Your task to perform on an android device: Open settings on Google Maps Image 0: 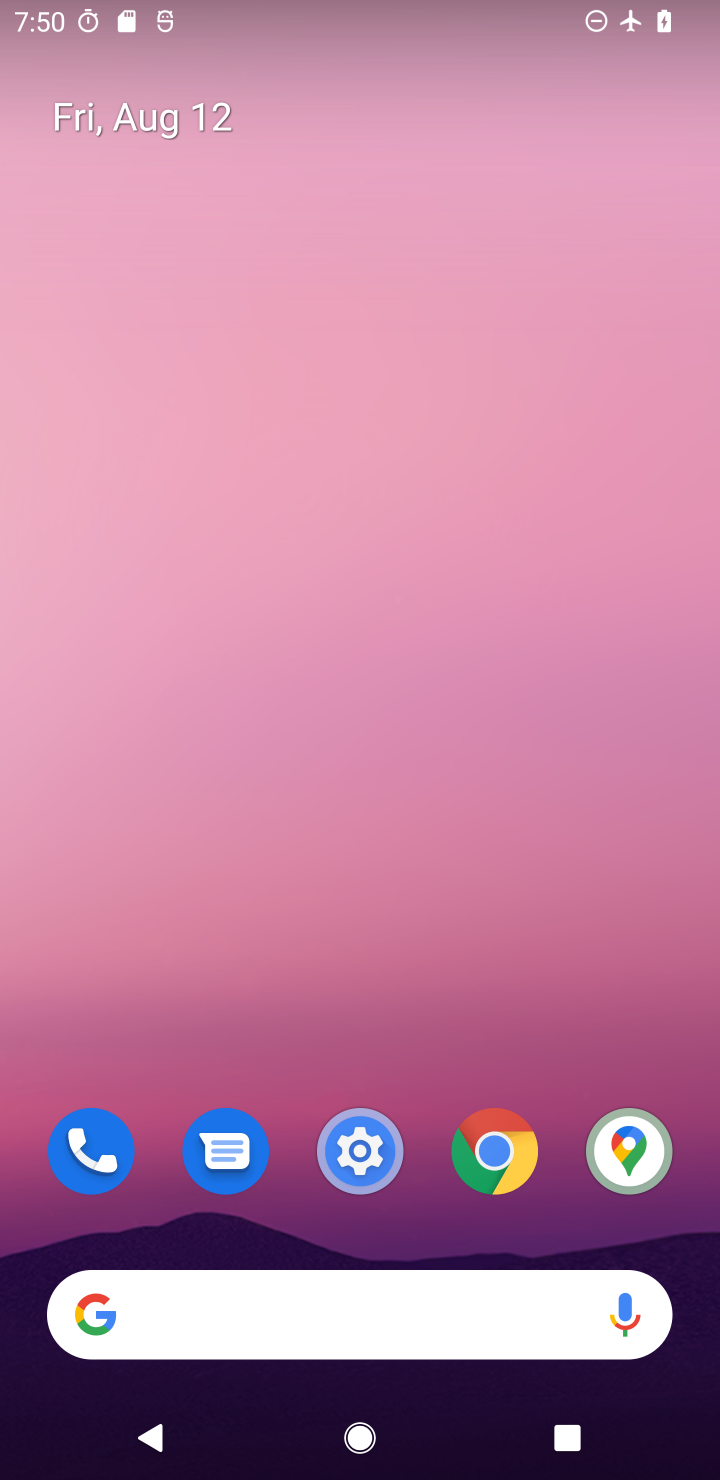
Step 0: drag from (464, 1065) to (505, 173)
Your task to perform on an android device: Open settings on Google Maps Image 1: 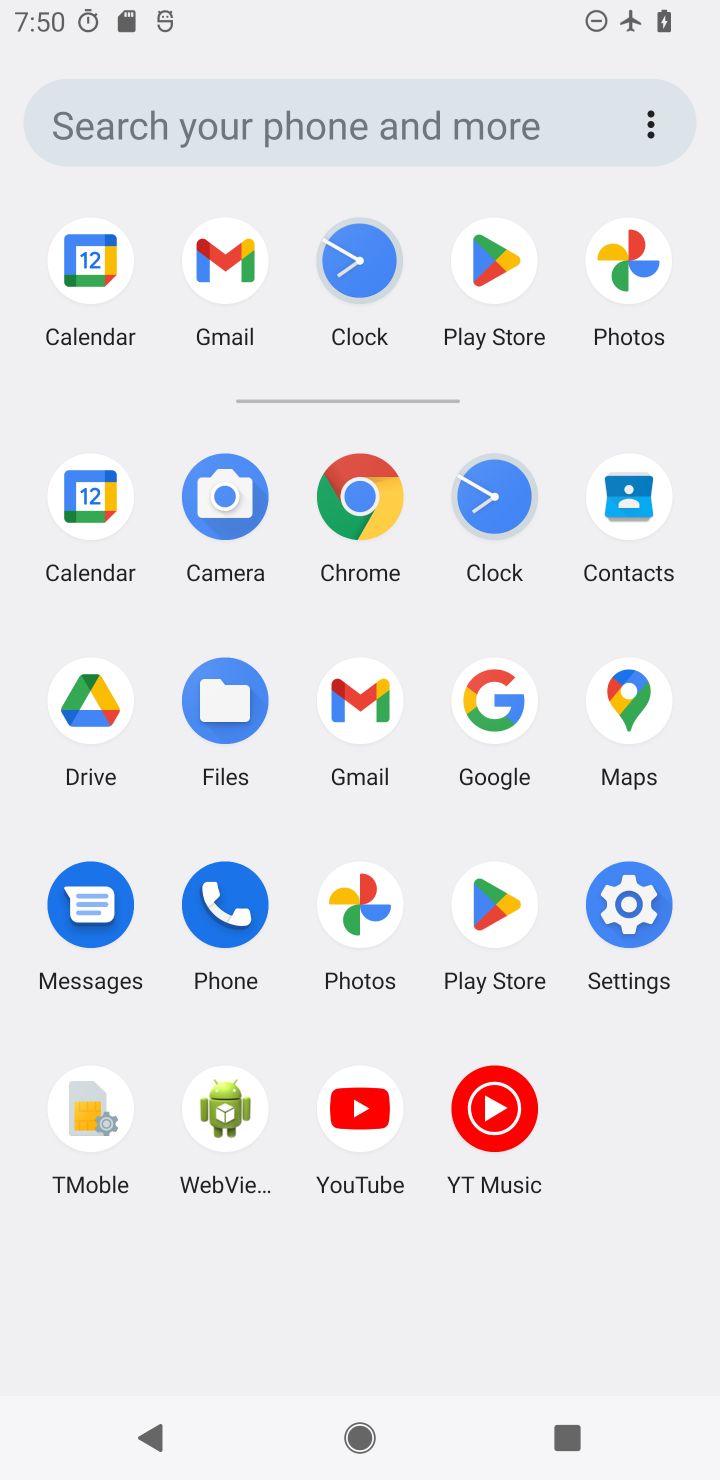
Step 1: click (610, 684)
Your task to perform on an android device: Open settings on Google Maps Image 2: 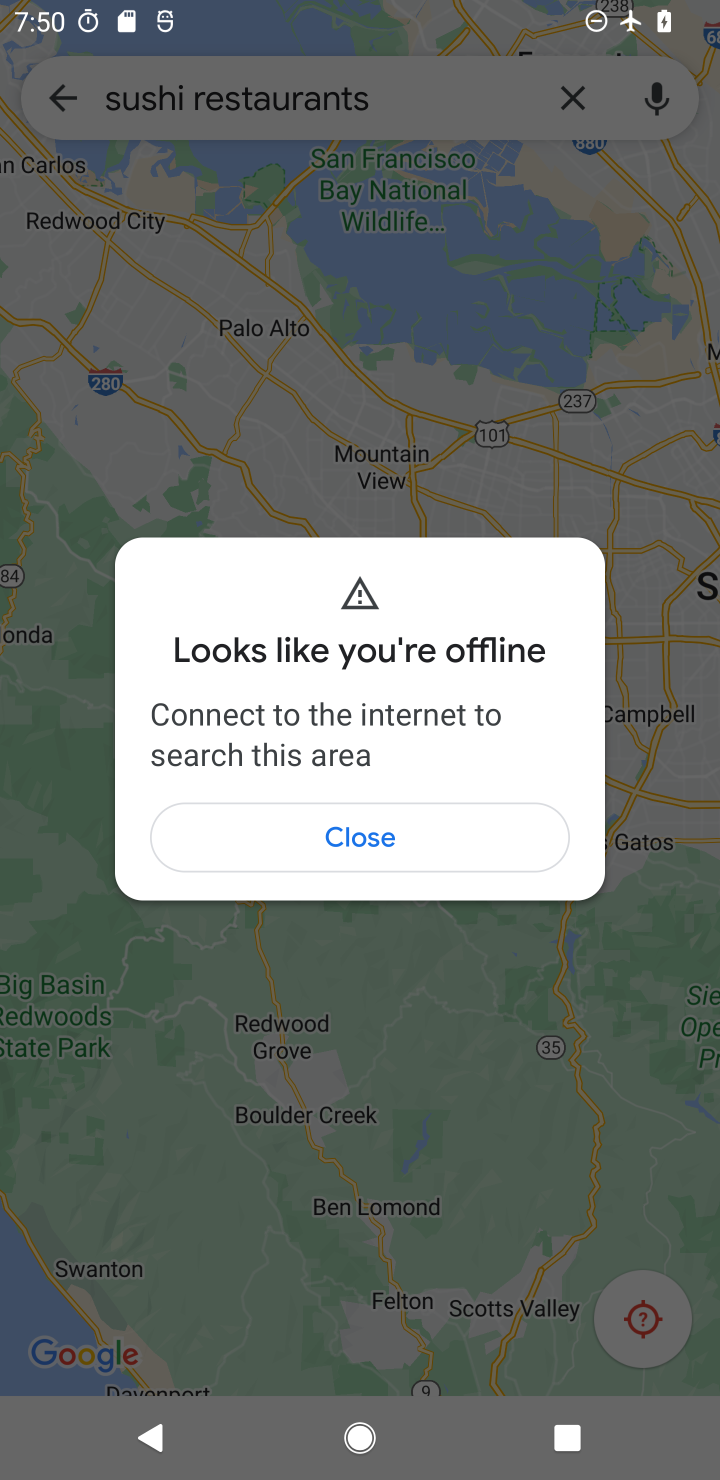
Step 2: click (460, 838)
Your task to perform on an android device: Open settings on Google Maps Image 3: 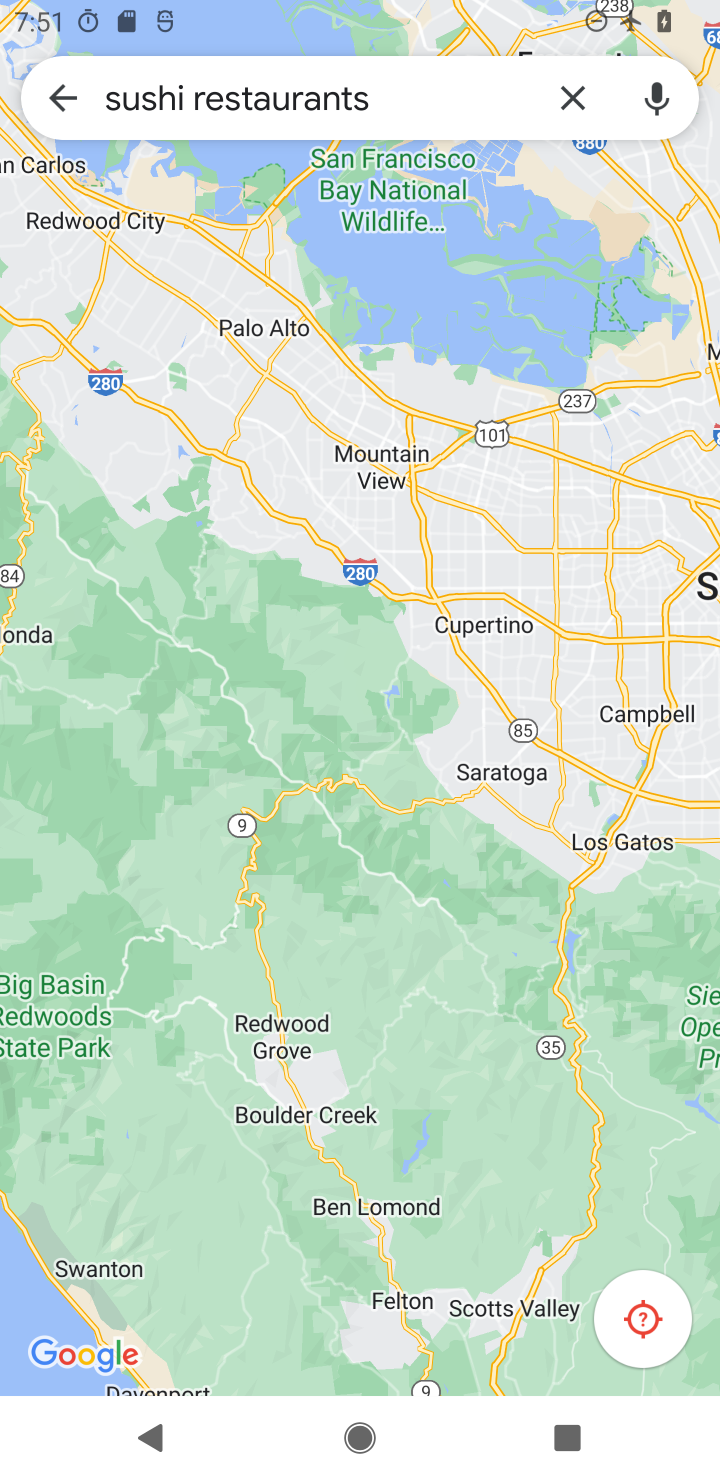
Step 3: click (81, 91)
Your task to perform on an android device: Open settings on Google Maps Image 4: 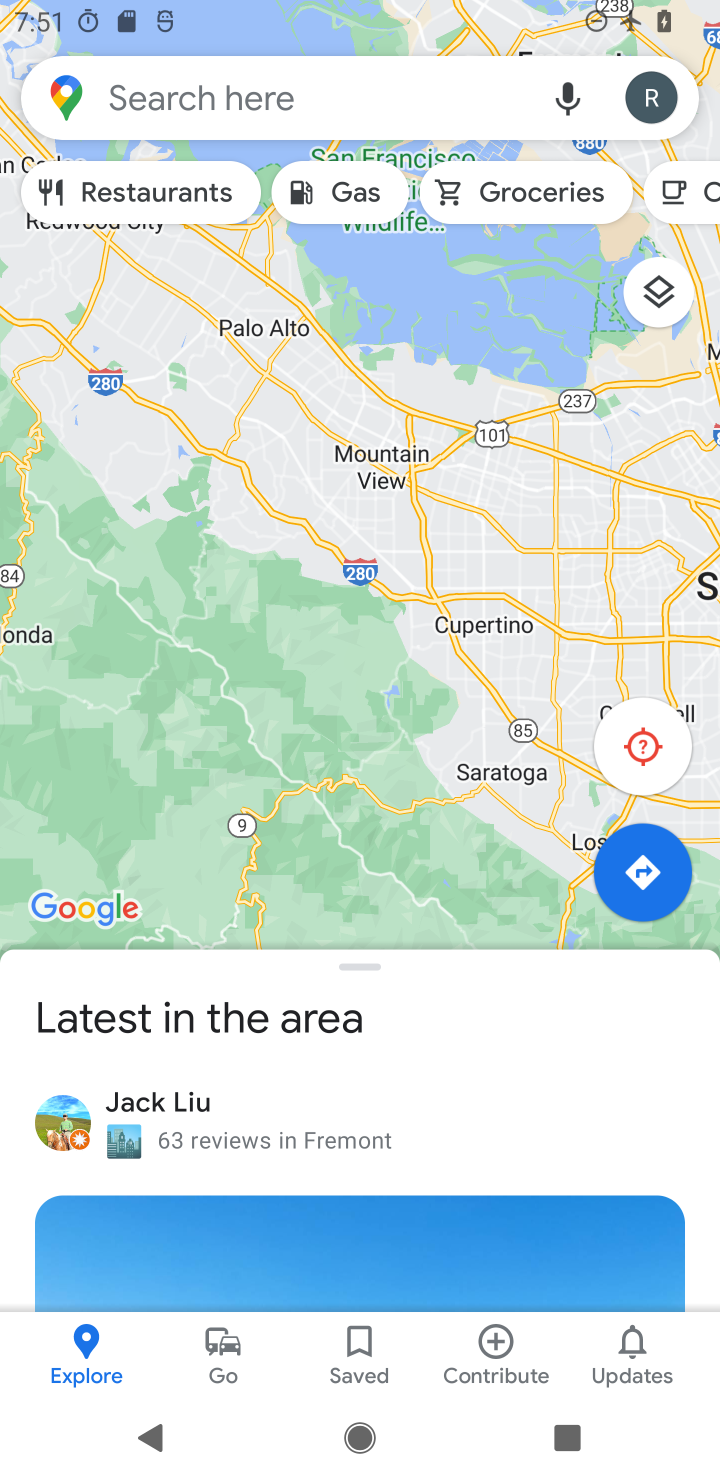
Step 4: click (650, 86)
Your task to perform on an android device: Open settings on Google Maps Image 5: 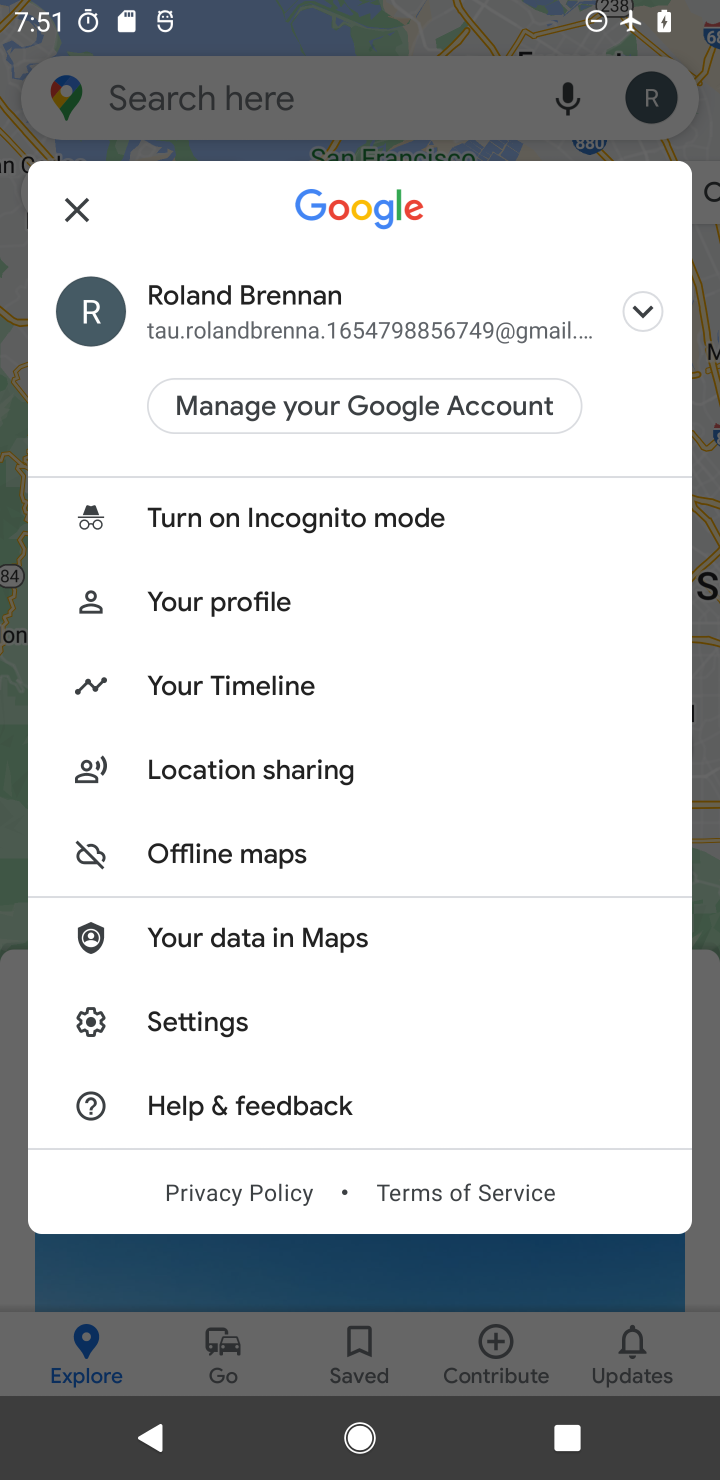
Step 5: click (223, 1029)
Your task to perform on an android device: Open settings on Google Maps Image 6: 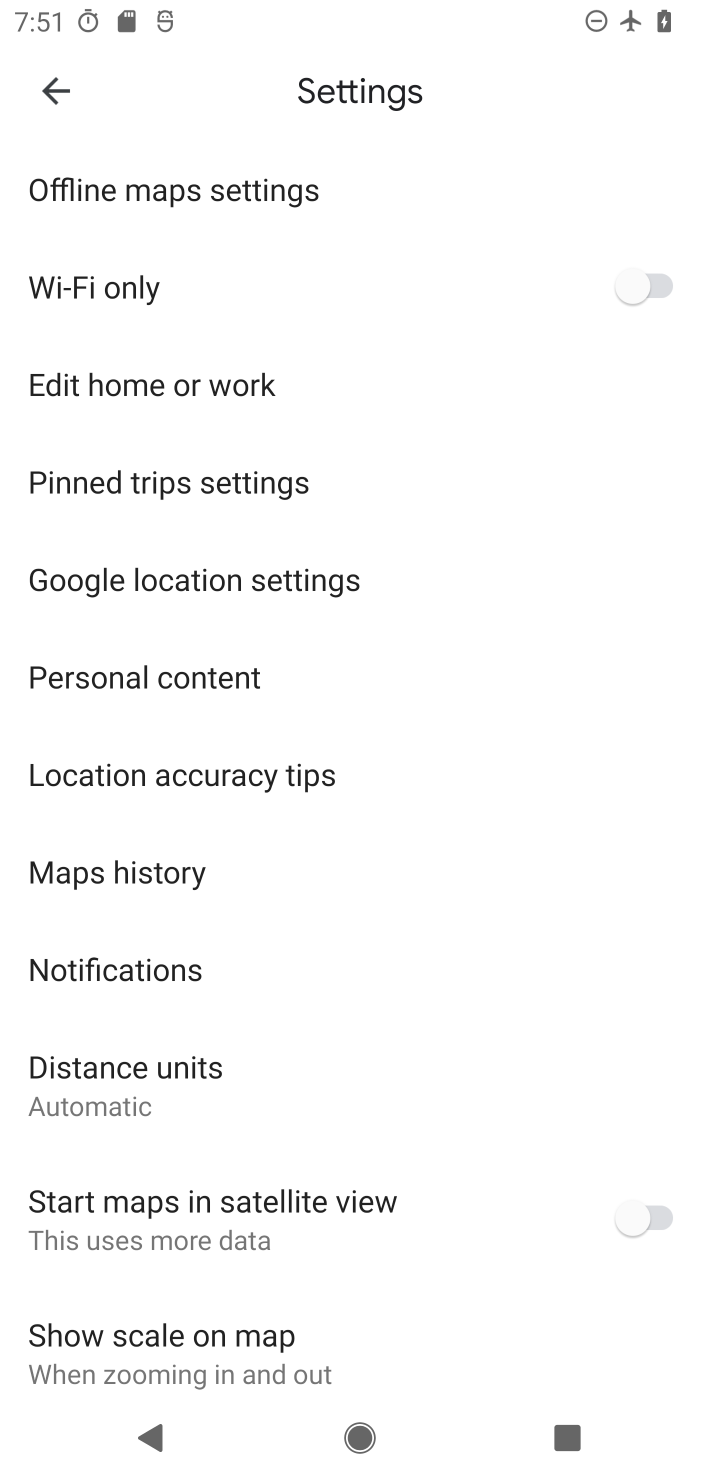
Step 6: task complete